Your task to perform on an android device: Go to wifi settings Image 0: 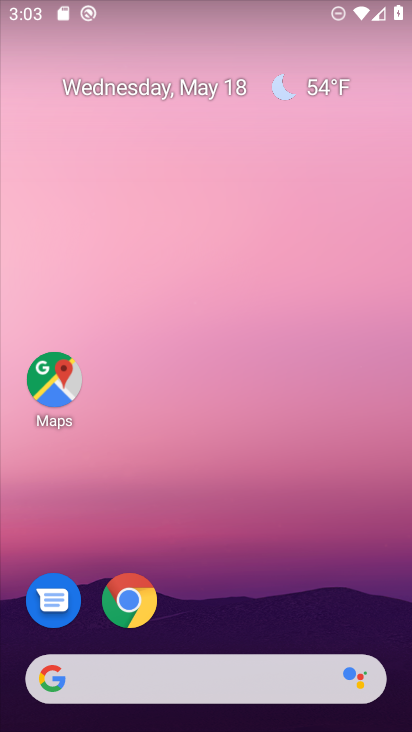
Step 0: drag from (210, 615) to (271, 1)
Your task to perform on an android device: Go to wifi settings Image 1: 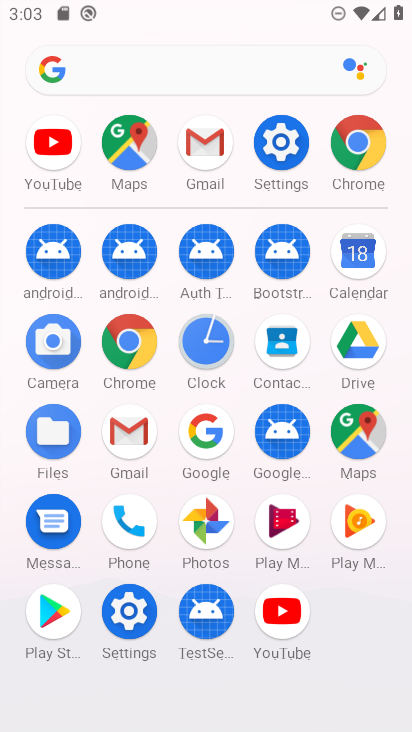
Step 1: click (284, 163)
Your task to perform on an android device: Go to wifi settings Image 2: 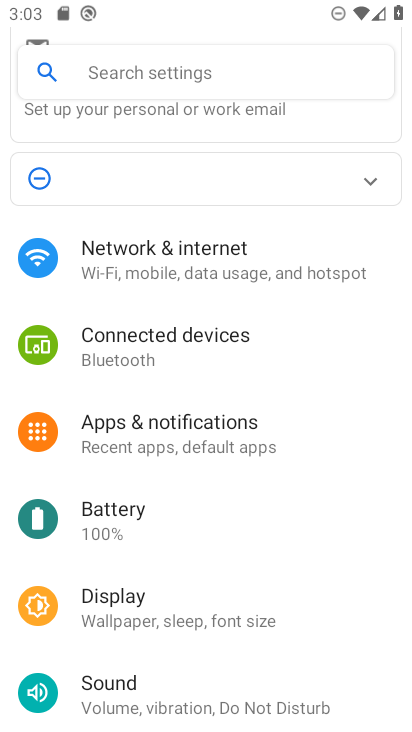
Step 2: click (225, 240)
Your task to perform on an android device: Go to wifi settings Image 3: 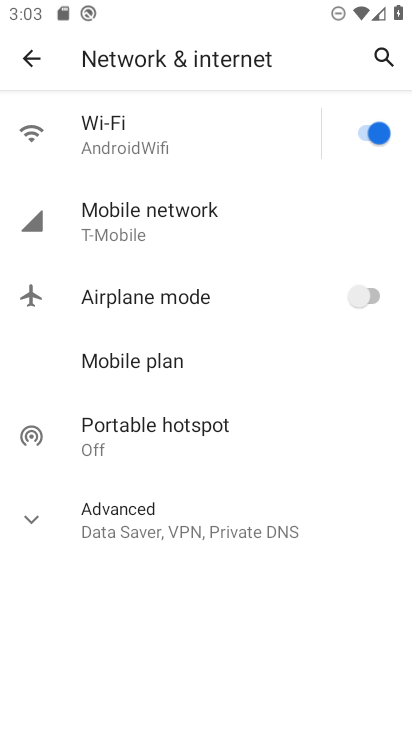
Step 3: click (142, 139)
Your task to perform on an android device: Go to wifi settings Image 4: 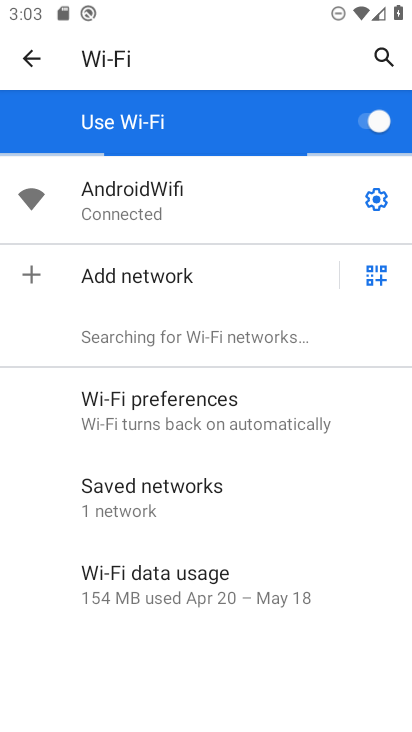
Step 4: task complete